Your task to perform on an android device: check battery use Image 0: 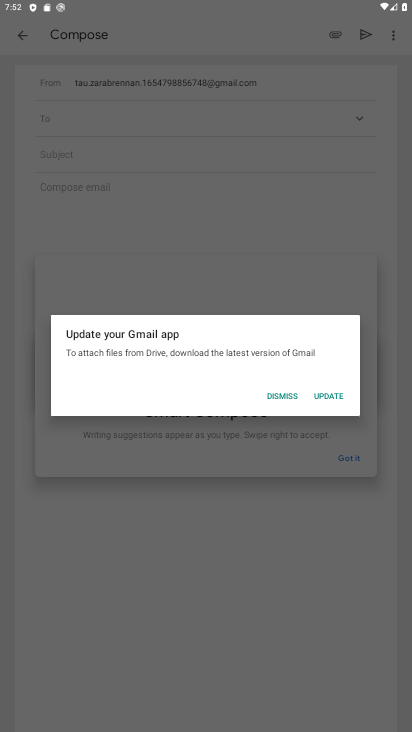
Step 0: press home button
Your task to perform on an android device: check battery use Image 1: 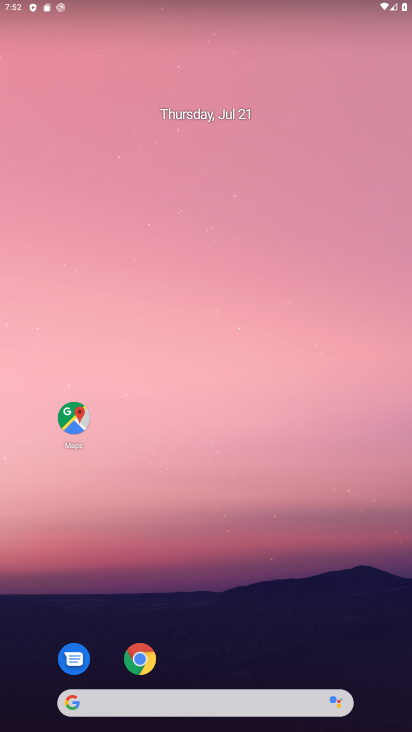
Step 1: drag from (240, 646) to (128, 179)
Your task to perform on an android device: check battery use Image 2: 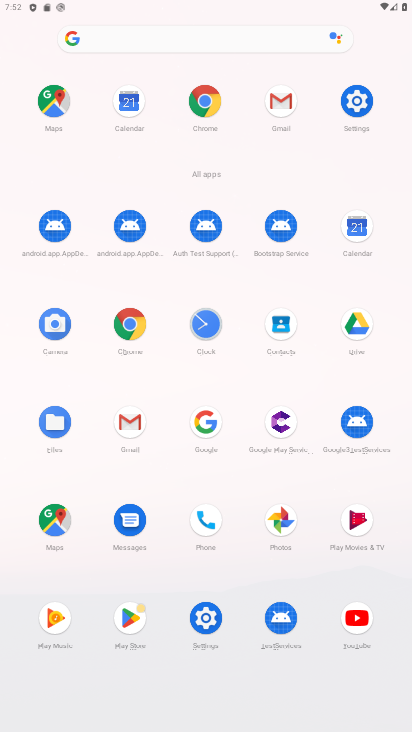
Step 2: click (356, 93)
Your task to perform on an android device: check battery use Image 3: 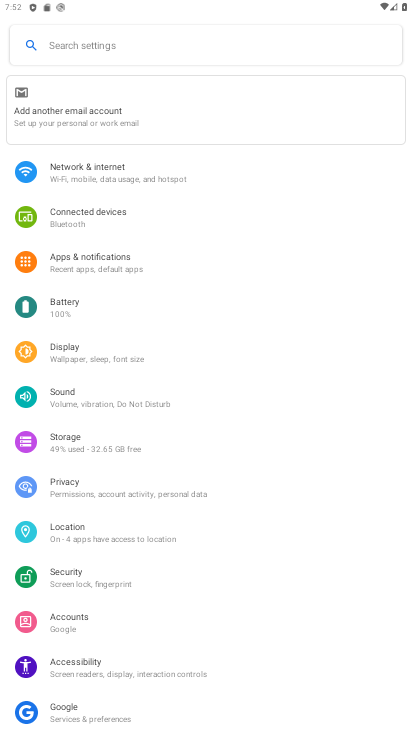
Step 3: click (130, 315)
Your task to perform on an android device: check battery use Image 4: 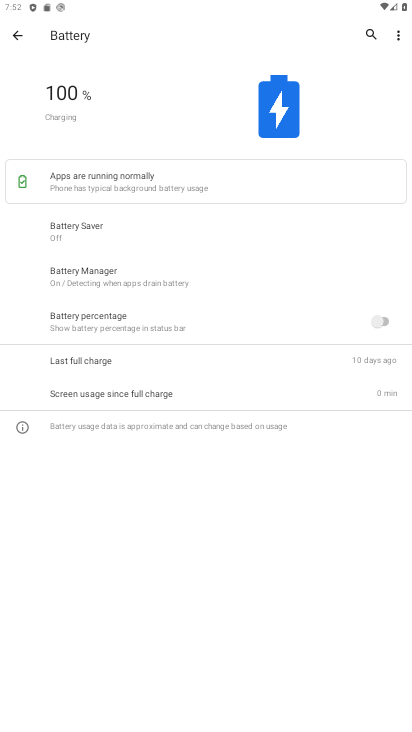
Step 4: click (401, 33)
Your task to perform on an android device: check battery use Image 5: 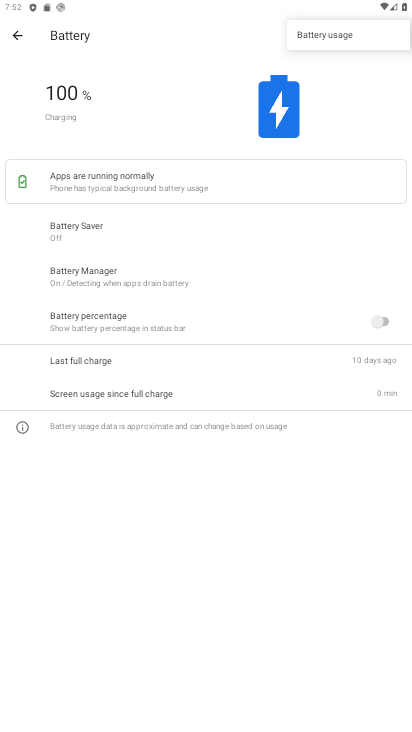
Step 5: click (397, 34)
Your task to perform on an android device: check battery use Image 6: 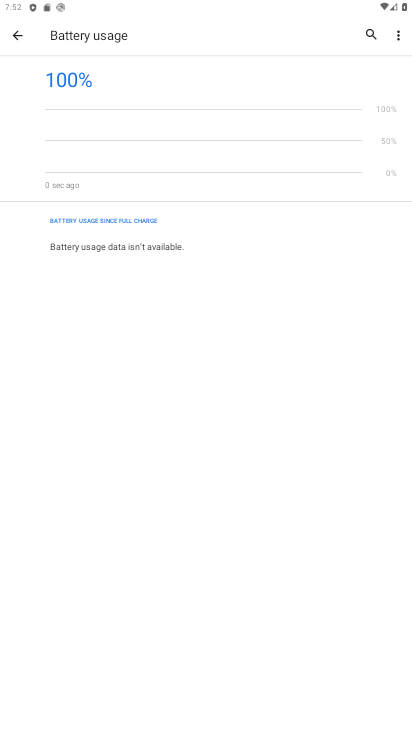
Step 6: task complete